Your task to perform on an android device: turn off sleep mode Image 0: 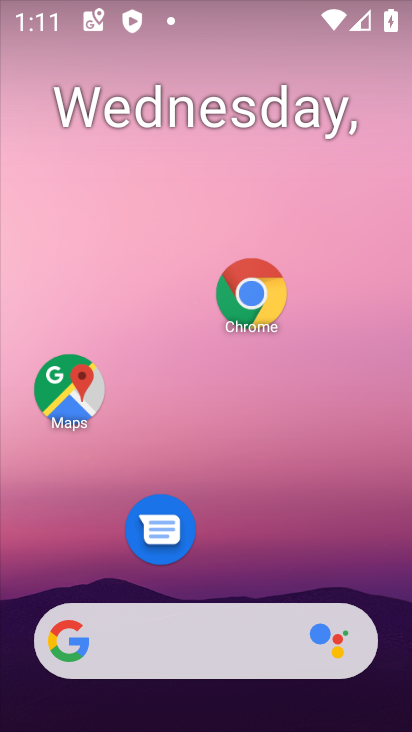
Step 0: drag from (253, 419) to (271, 193)
Your task to perform on an android device: turn off sleep mode Image 1: 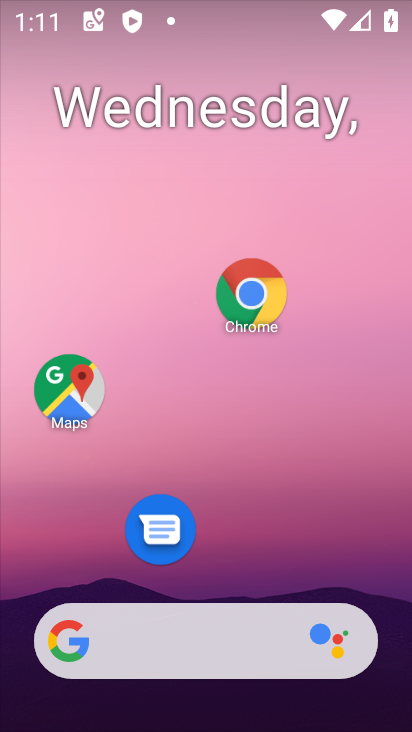
Step 1: drag from (270, 485) to (313, 173)
Your task to perform on an android device: turn off sleep mode Image 2: 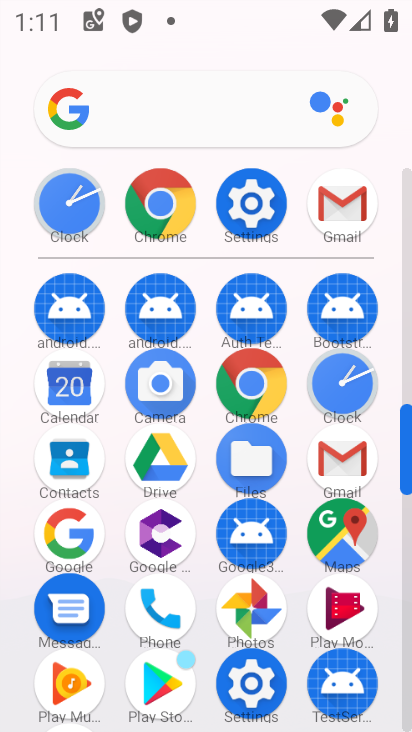
Step 2: click (261, 227)
Your task to perform on an android device: turn off sleep mode Image 3: 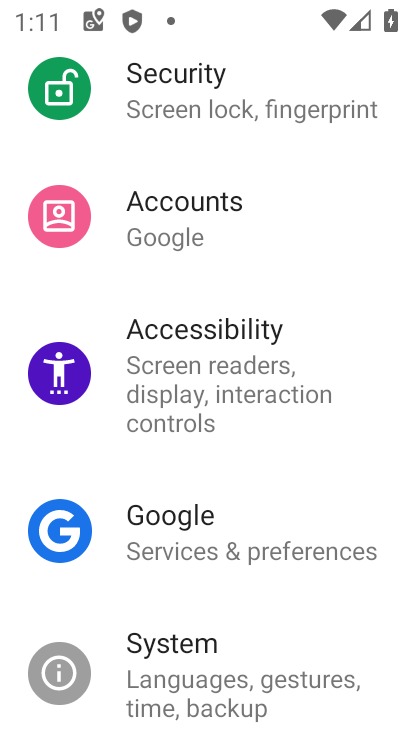
Step 3: drag from (253, 415) to (286, 187)
Your task to perform on an android device: turn off sleep mode Image 4: 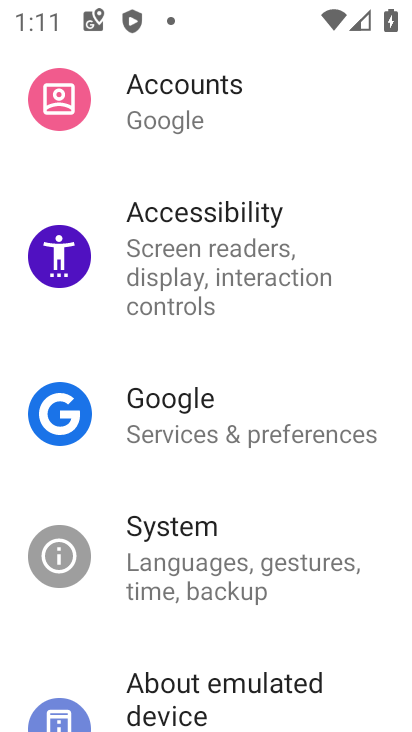
Step 4: drag from (251, 279) to (223, 639)
Your task to perform on an android device: turn off sleep mode Image 5: 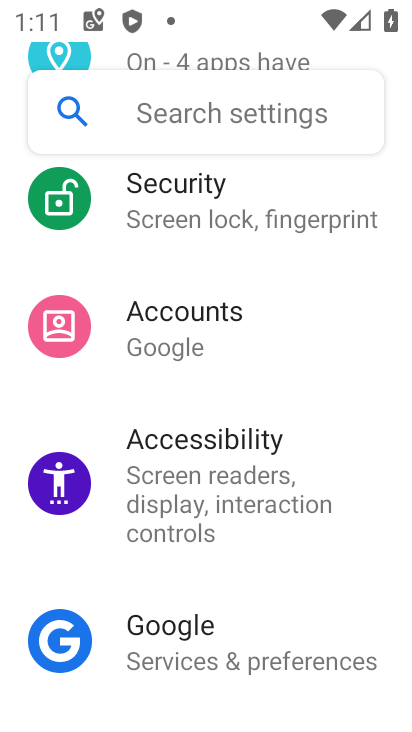
Step 5: drag from (238, 324) to (238, 722)
Your task to perform on an android device: turn off sleep mode Image 6: 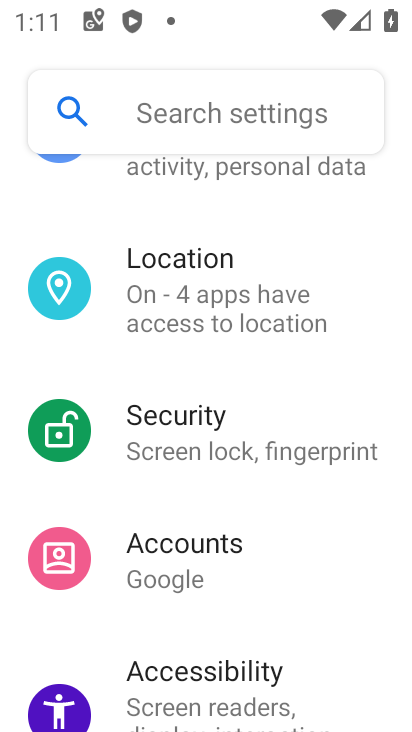
Step 6: drag from (240, 386) to (248, 722)
Your task to perform on an android device: turn off sleep mode Image 7: 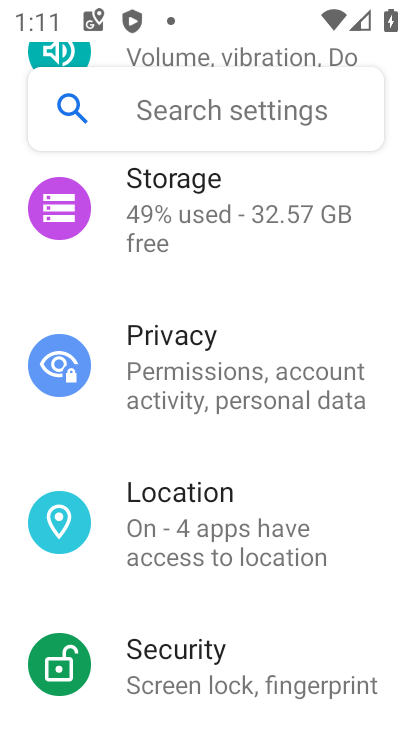
Step 7: drag from (251, 493) to (229, 681)
Your task to perform on an android device: turn off sleep mode Image 8: 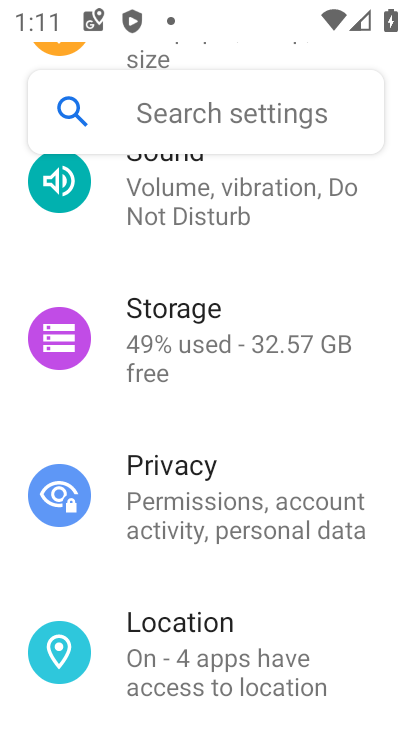
Step 8: drag from (224, 293) to (236, 664)
Your task to perform on an android device: turn off sleep mode Image 9: 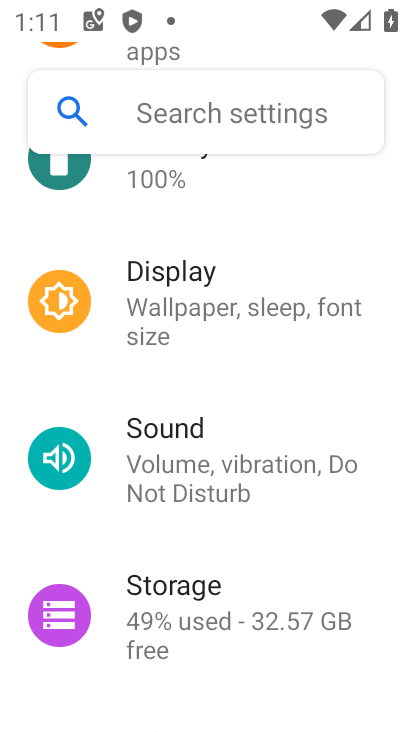
Step 9: click (248, 327)
Your task to perform on an android device: turn off sleep mode Image 10: 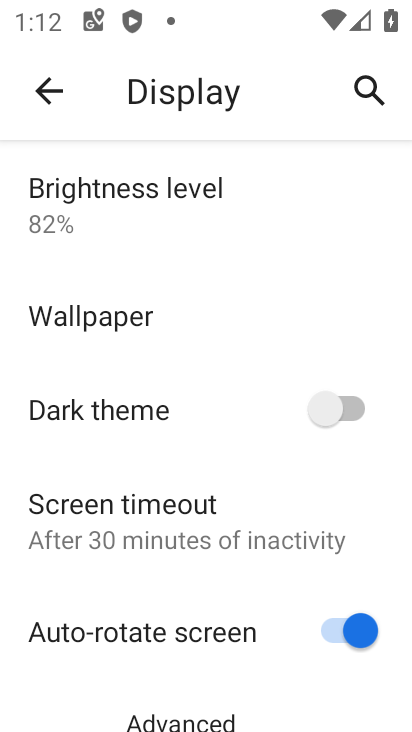
Step 10: drag from (246, 433) to (262, 75)
Your task to perform on an android device: turn off sleep mode Image 11: 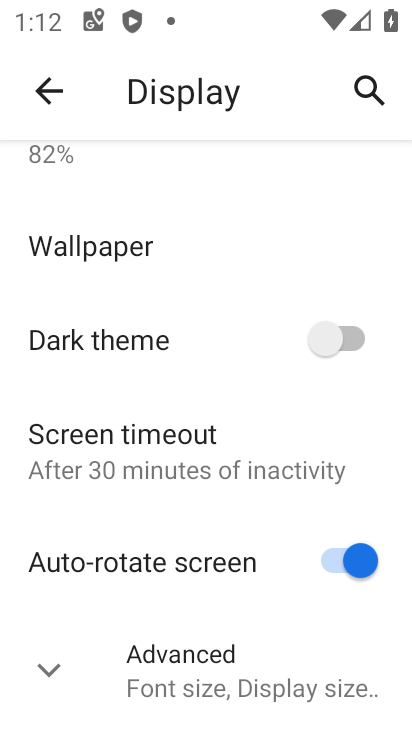
Step 11: click (206, 651)
Your task to perform on an android device: turn off sleep mode Image 12: 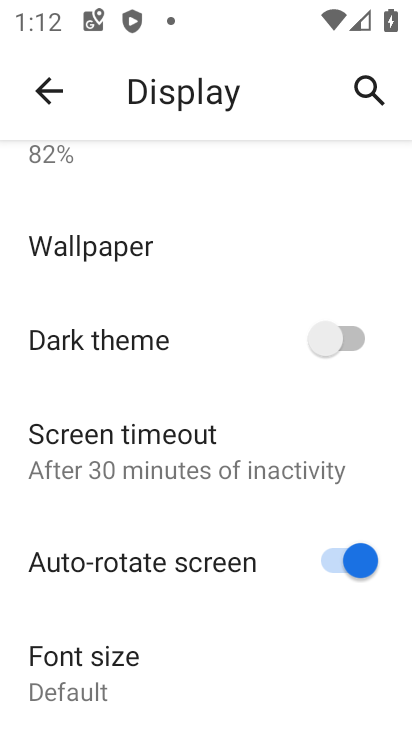
Step 12: task complete